Your task to perform on an android device: Do I have any events this weekend? Image 0: 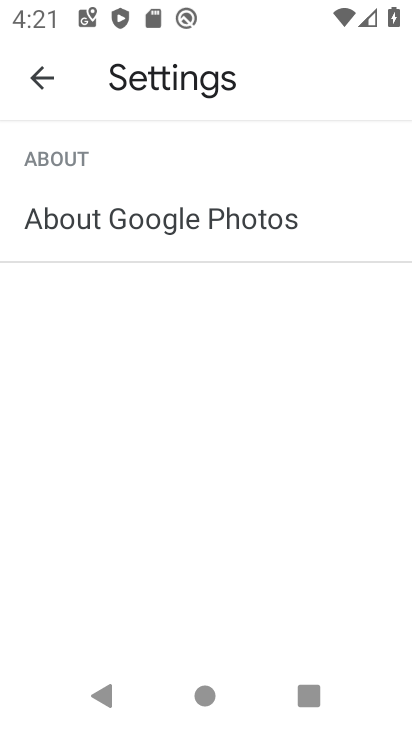
Step 0: press back button
Your task to perform on an android device: Do I have any events this weekend? Image 1: 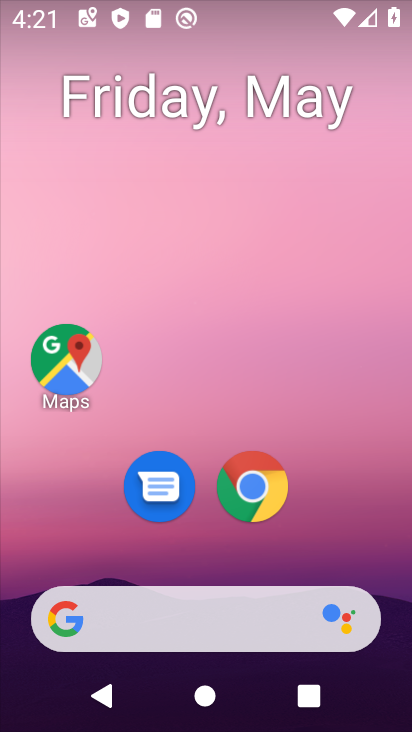
Step 1: drag from (389, 566) to (311, 18)
Your task to perform on an android device: Do I have any events this weekend? Image 2: 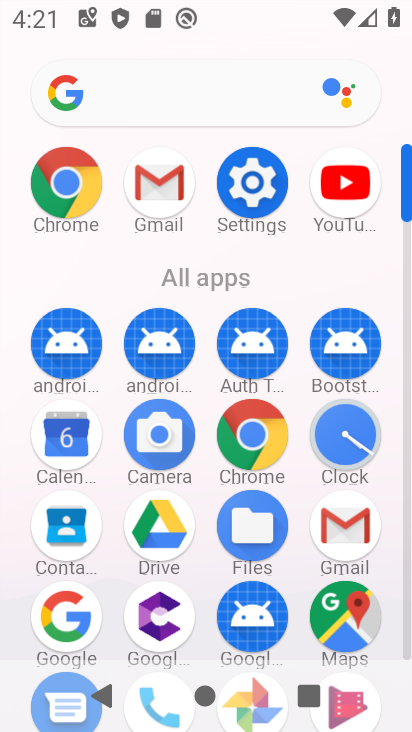
Step 2: drag from (7, 637) to (10, 308)
Your task to perform on an android device: Do I have any events this weekend? Image 3: 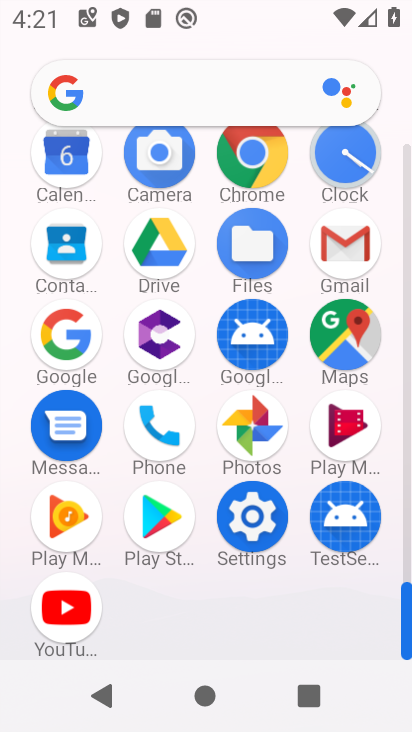
Step 3: drag from (21, 229) to (1, 519)
Your task to perform on an android device: Do I have any events this weekend? Image 4: 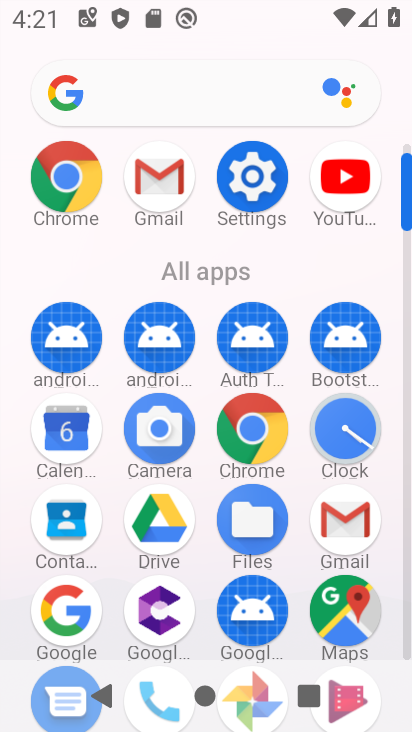
Step 4: drag from (24, 506) to (32, 262)
Your task to perform on an android device: Do I have any events this weekend? Image 5: 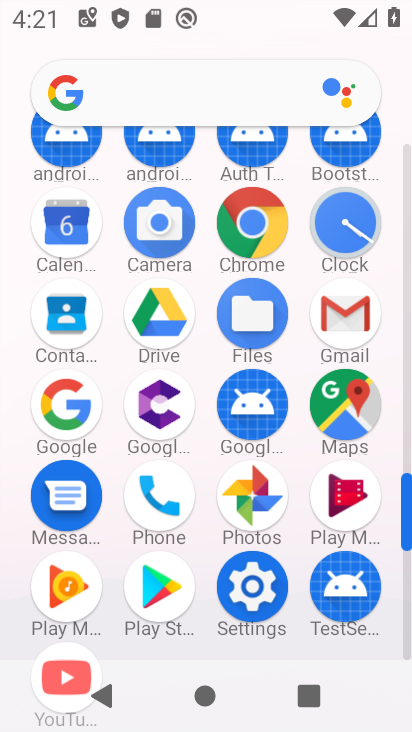
Step 5: drag from (11, 573) to (30, 243)
Your task to perform on an android device: Do I have any events this weekend? Image 6: 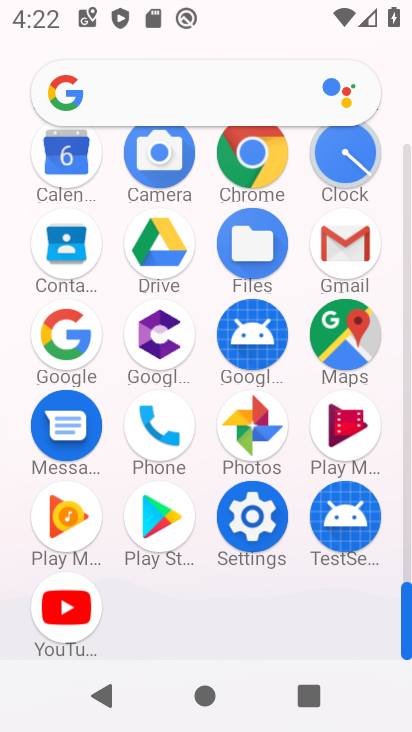
Step 6: click (61, 154)
Your task to perform on an android device: Do I have any events this weekend? Image 7: 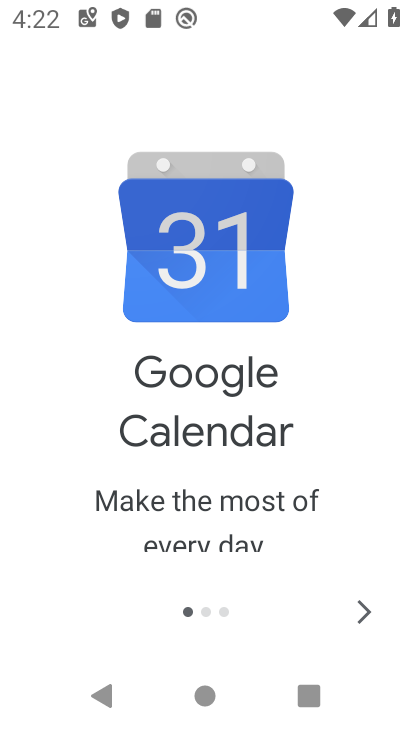
Step 7: click (357, 600)
Your task to perform on an android device: Do I have any events this weekend? Image 8: 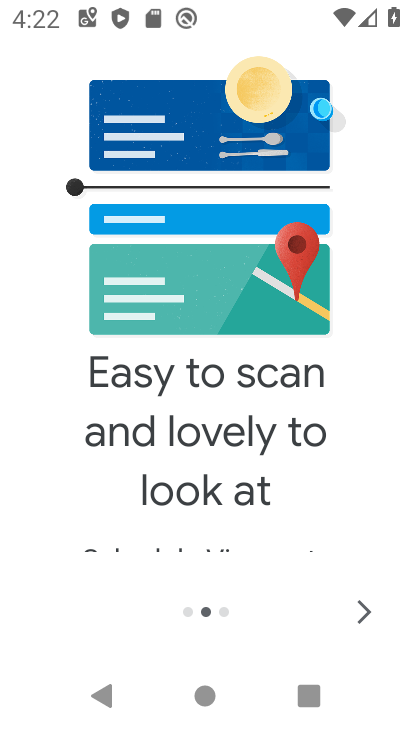
Step 8: click (364, 604)
Your task to perform on an android device: Do I have any events this weekend? Image 9: 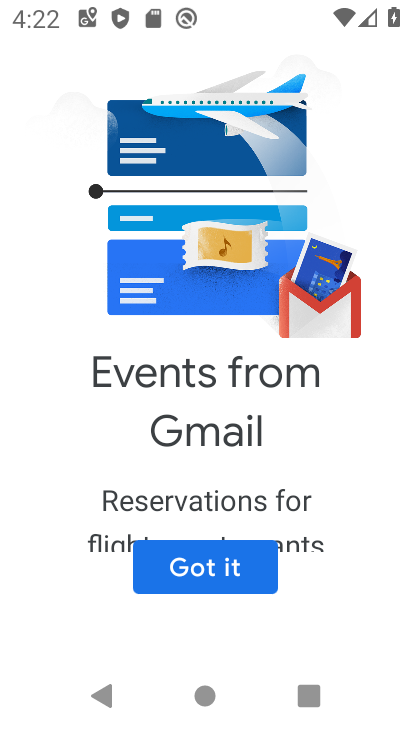
Step 9: click (236, 581)
Your task to perform on an android device: Do I have any events this weekend? Image 10: 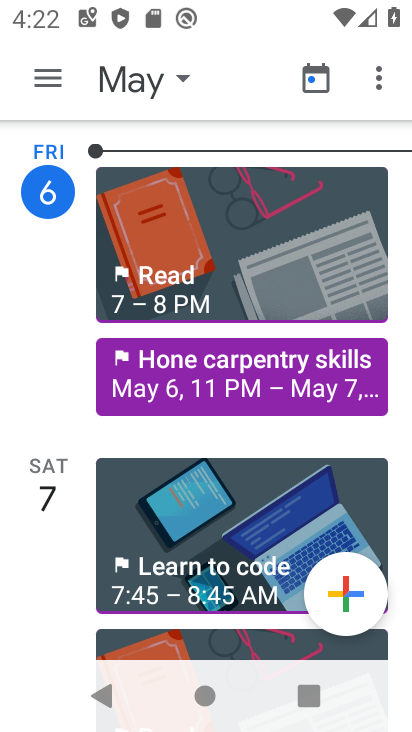
Step 10: click (51, 466)
Your task to perform on an android device: Do I have any events this weekend? Image 11: 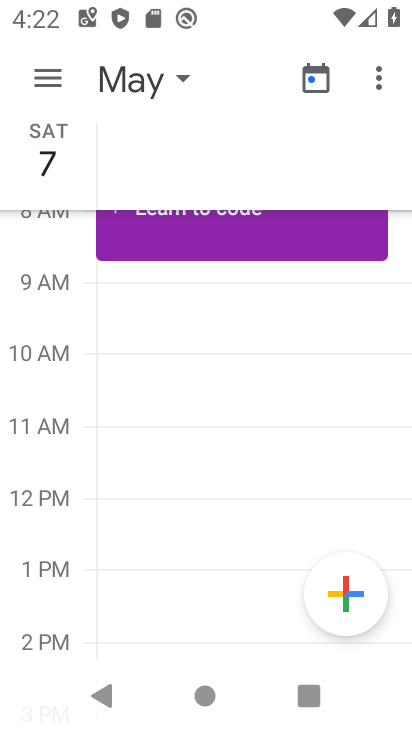
Step 11: task complete